Your task to perform on an android device: install app "Roku - Official Remote Control" Image 0: 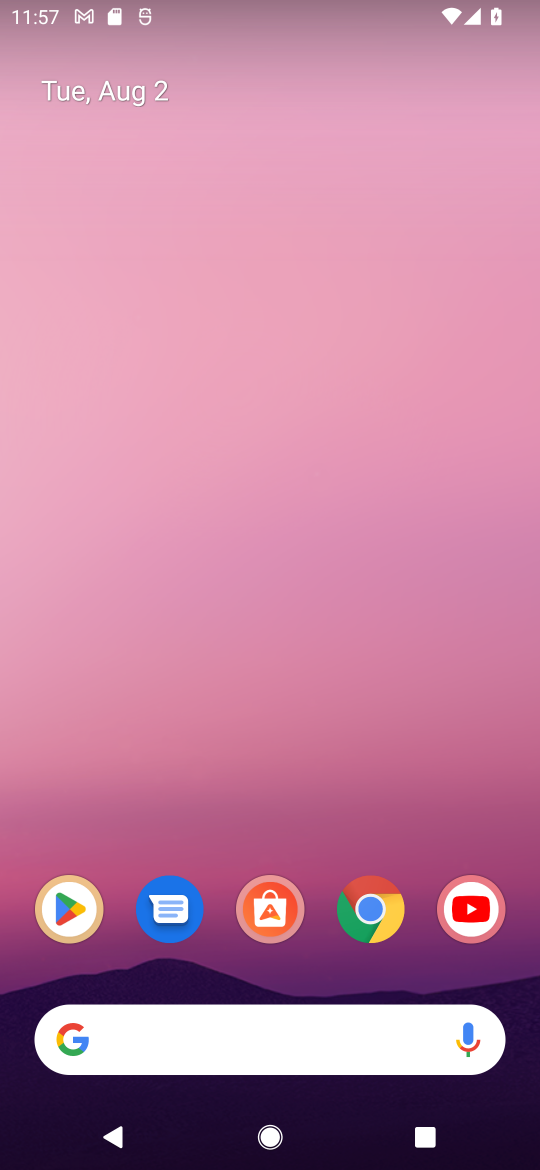
Step 0: press home button
Your task to perform on an android device: install app "Roku - Official Remote Control" Image 1: 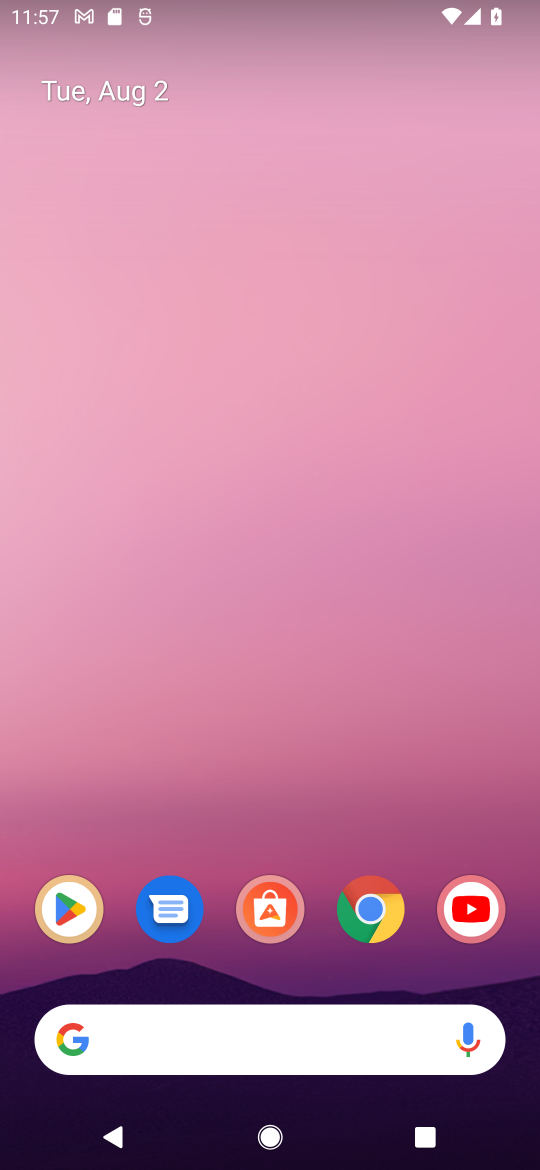
Step 1: press home button
Your task to perform on an android device: install app "Roku - Official Remote Control" Image 2: 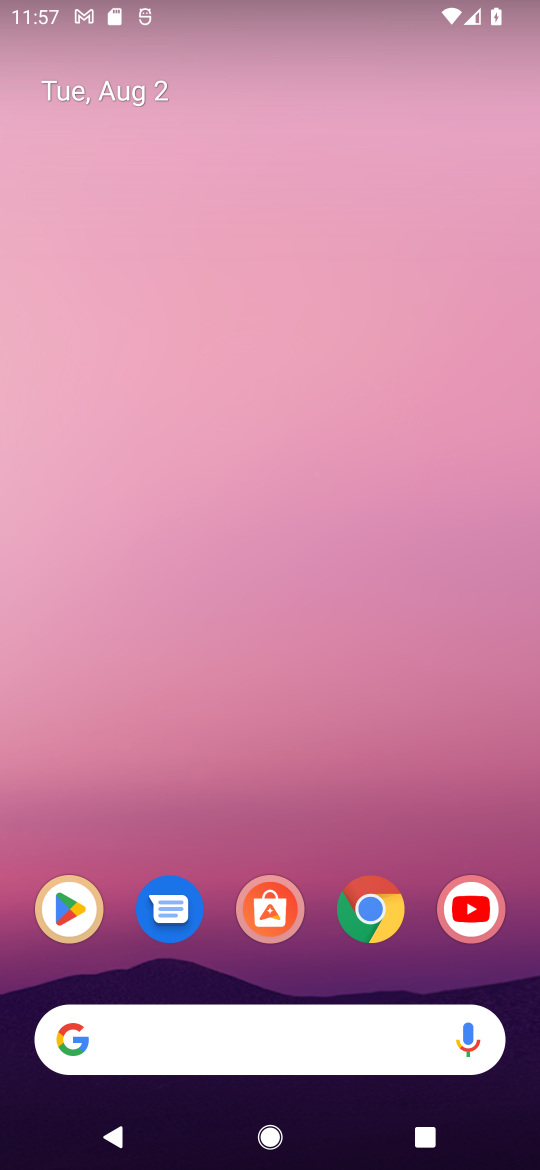
Step 2: click (84, 919)
Your task to perform on an android device: install app "Roku - Official Remote Control" Image 3: 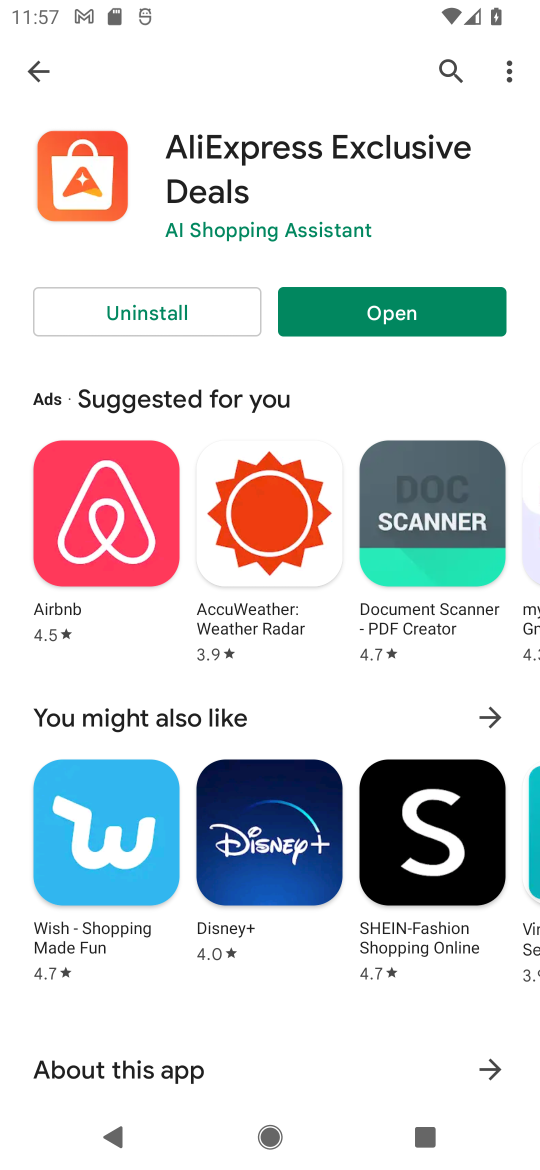
Step 3: click (441, 78)
Your task to perform on an android device: install app "Roku - Official Remote Control" Image 4: 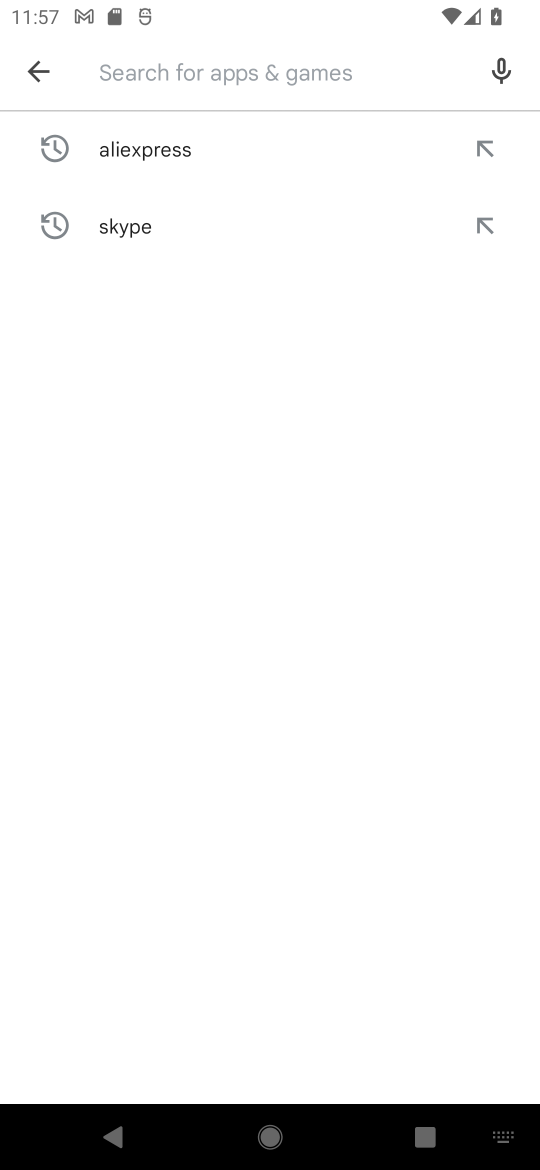
Step 4: type "Roku"
Your task to perform on an android device: install app "Roku - Official Remote Control" Image 5: 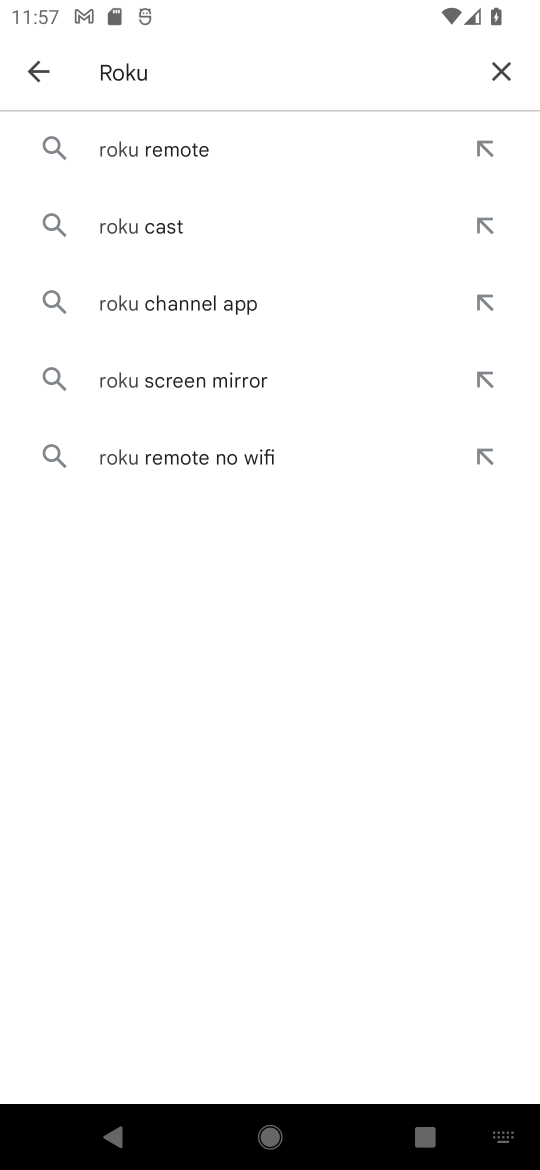
Step 5: click (201, 148)
Your task to perform on an android device: install app "Roku - Official Remote Control" Image 6: 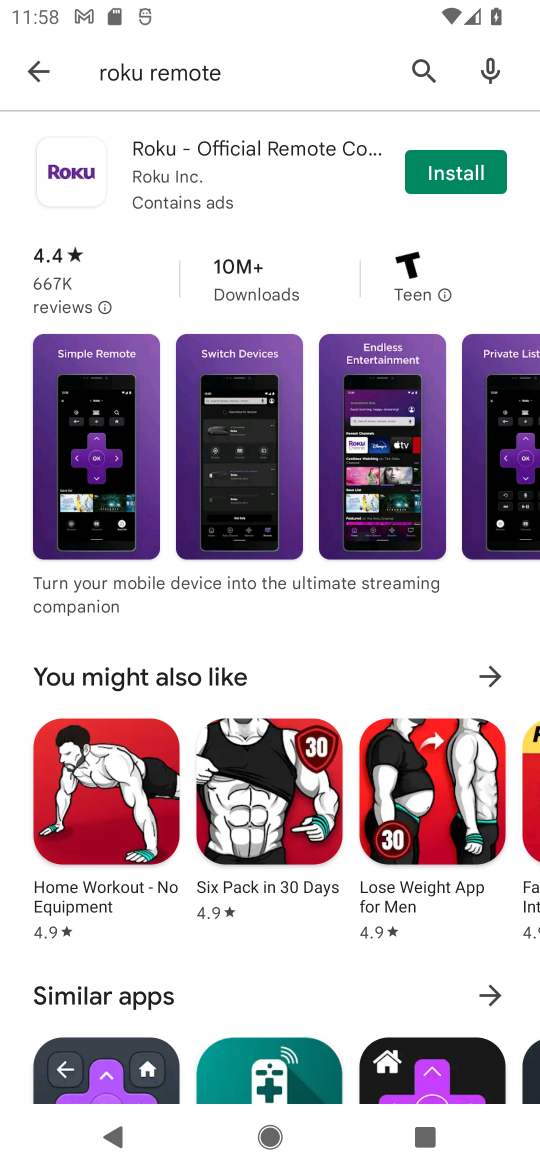
Step 6: click (480, 175)
Your task to perform on an android device: install app "Roku - Official Remote Control" Image 7: 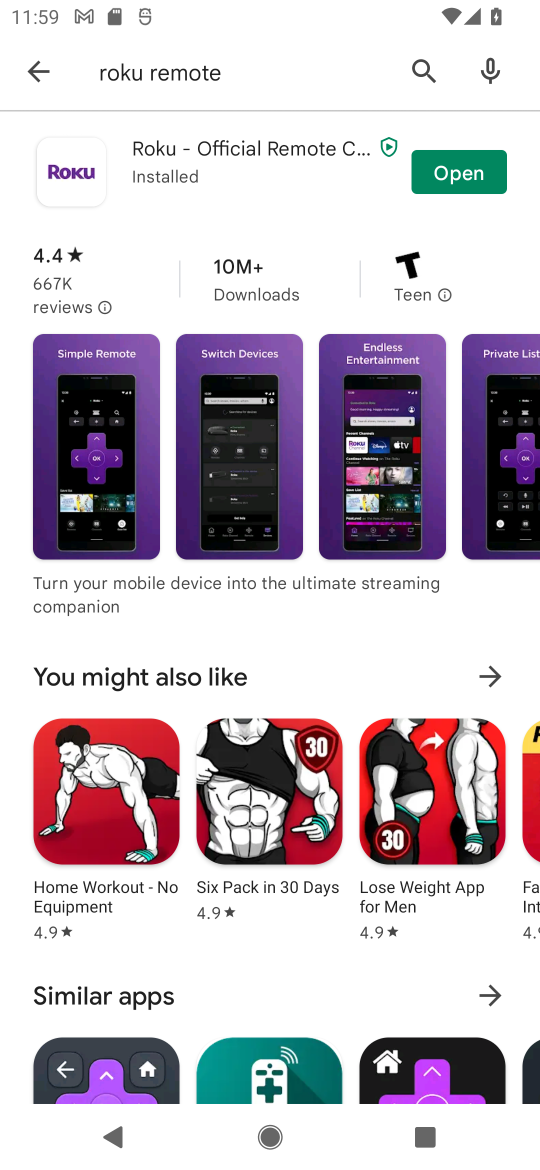
Step 7: task complete